Your task to perform on an android device: turn off improve location accuracy Image 0: 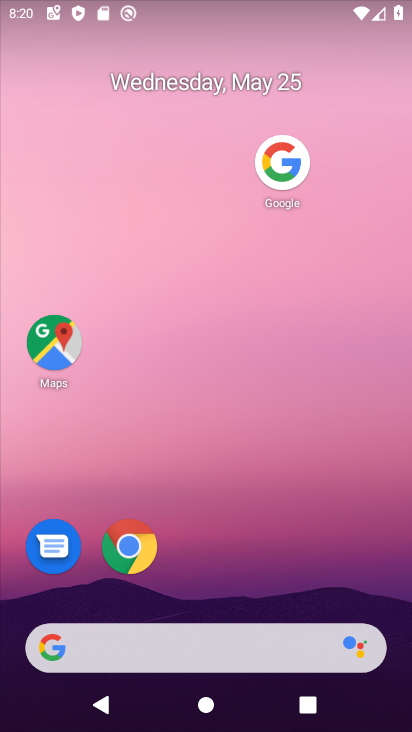
Step 0: drag from (209, 636) to (303, 70)
Your task to perform on an android device: turn off improve location accuracy Image 1: 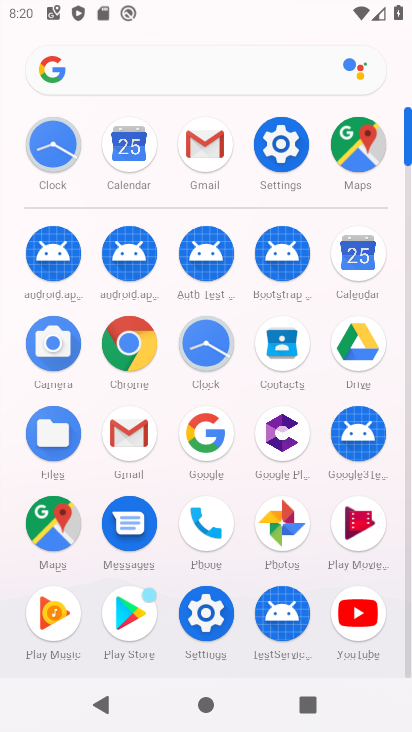
Step 1: click (290, 147)
Your task to perform on an android device: turn off improve location accuracy Image 2: 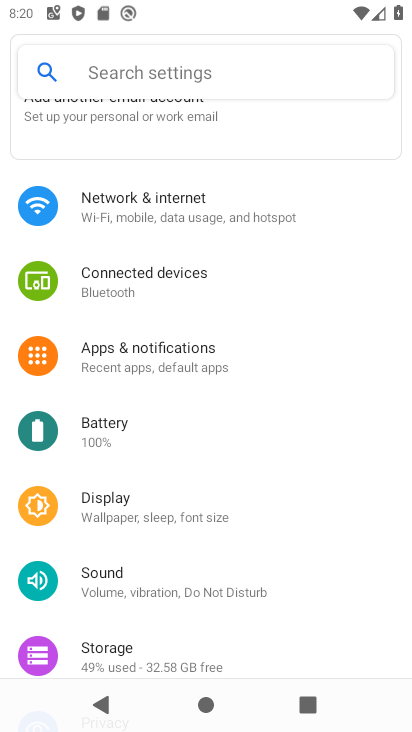
Step 2: drag from (253, 560) to (339, 179)
Your task to perform on an android device: turn off improve location accuracy Image 3: 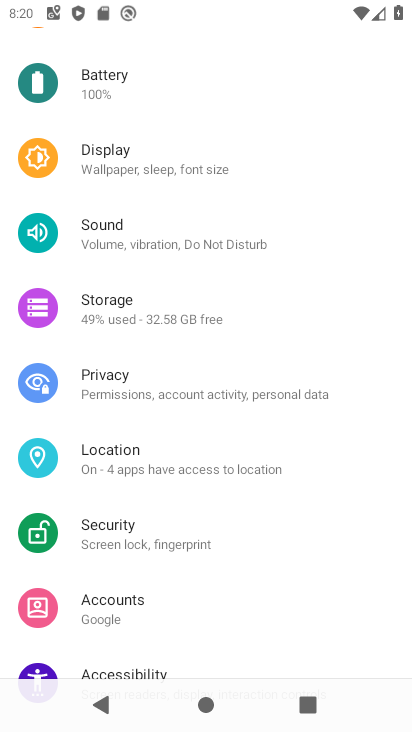
Step 3: click (188, 469)
Your task to perform on an android device: turn off improve location accuracy Image 4: 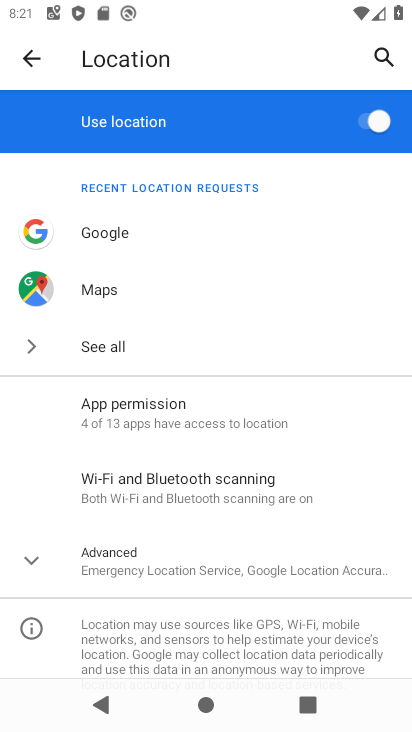
Step 4: click (231, 561)
Your task to perform on an android device: turn off improve location accuracy Image 5: 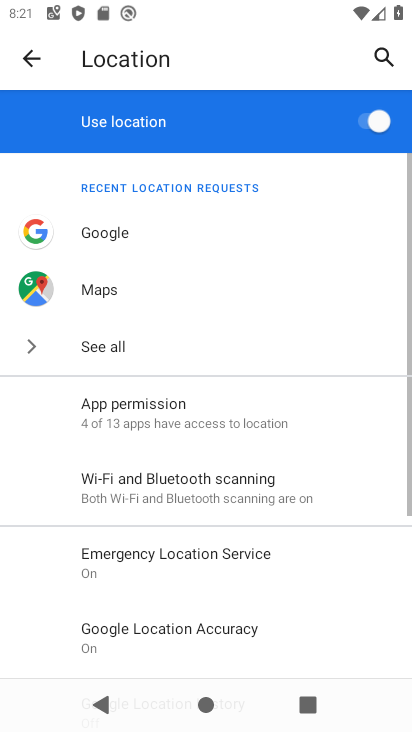
Step 5: drag from (286, 561) to (383, 208)
Your task to perform on an android device: turn off improve location accuracy Image 6: 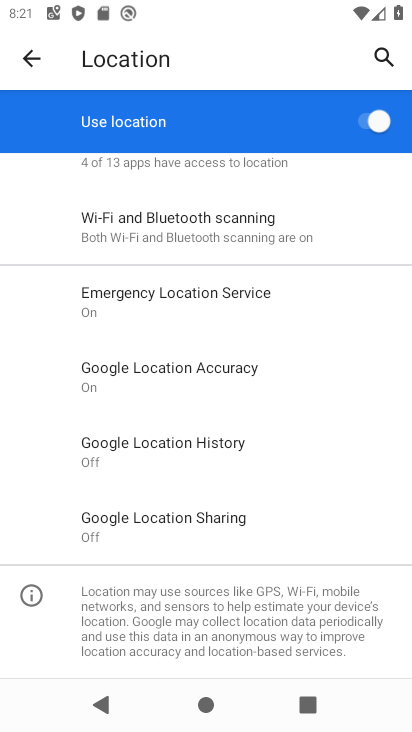
Step 6: click (200, 364)
Your task to perform on an android device: turn off improve location accuracy Image 7: 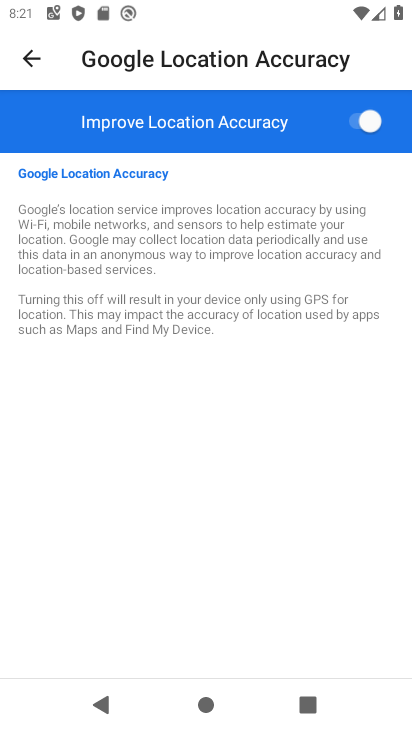
Step 7: click (361, 118)
Your task to perform on an android device: turn off improve location accuracy Image 8: 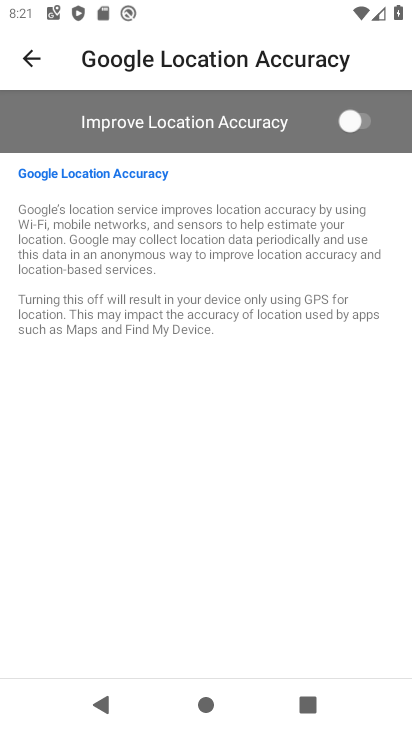
Step 8: task complete